Your task to perform on an android device: stop showing notifications on the lock screen Image 0: 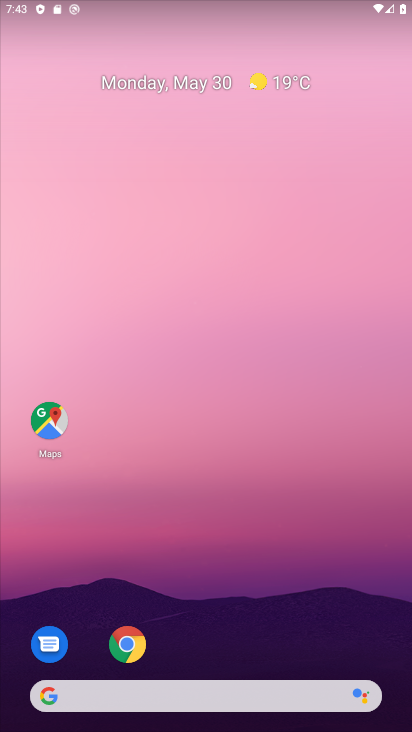
Step 0: drag from (235, 630) to (224, 95)
Your task to perform on an android device: stop showing notifications on the lock screen Image 1: 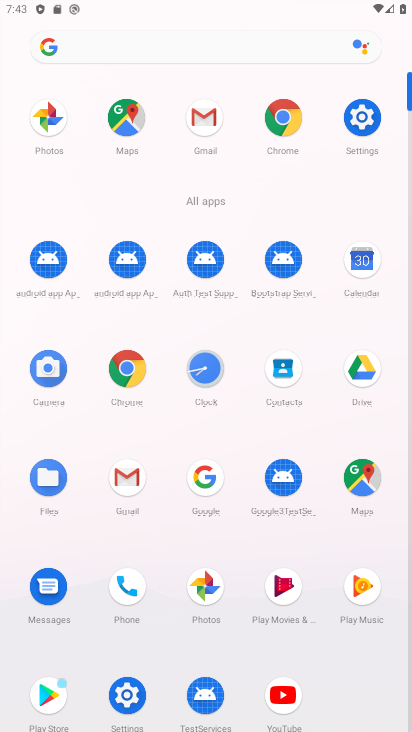
Step 1: click (361, 115)
Your task to perform on an android device: stop showing notifications on the lock screen Image 2: 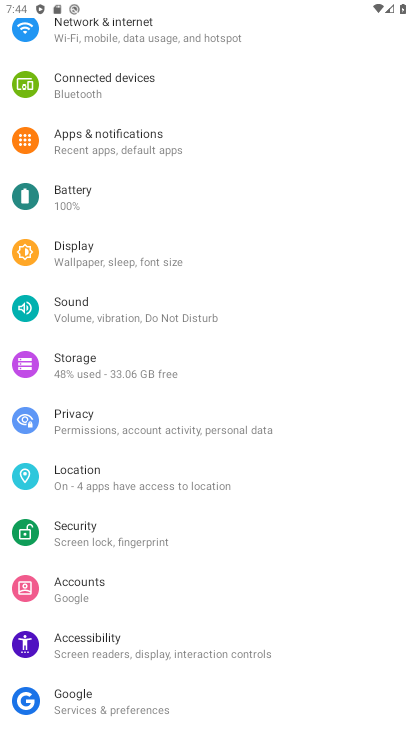
Step 2: drag from (112, 140) to (132, 229)
Your task to perform on an android device: stop showing notifications on the lock screen Image 3: 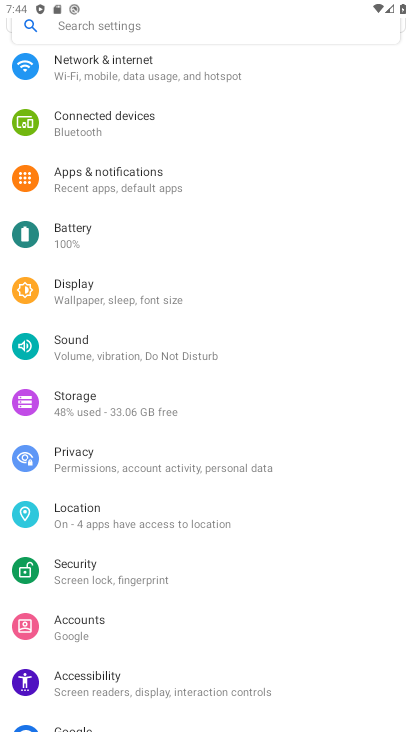
Step 3: click (107, 176)
Your task to perform on an android device: stop showing notifications on the lock screen Image 4: 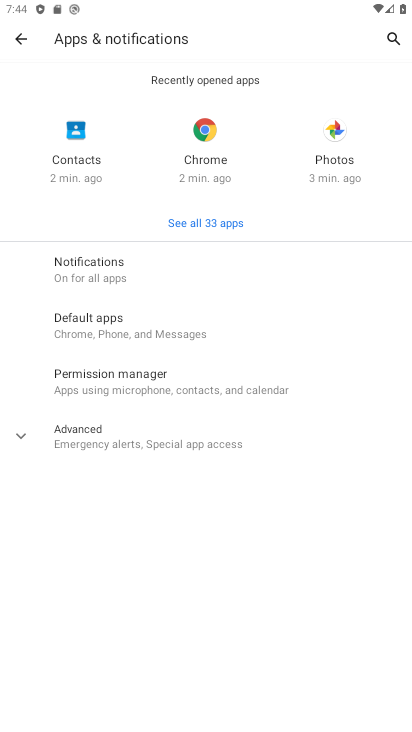
Step 4: click (105, 263)
Your task to perform on an android device: stop showing notifications on the lock screen Image 5: 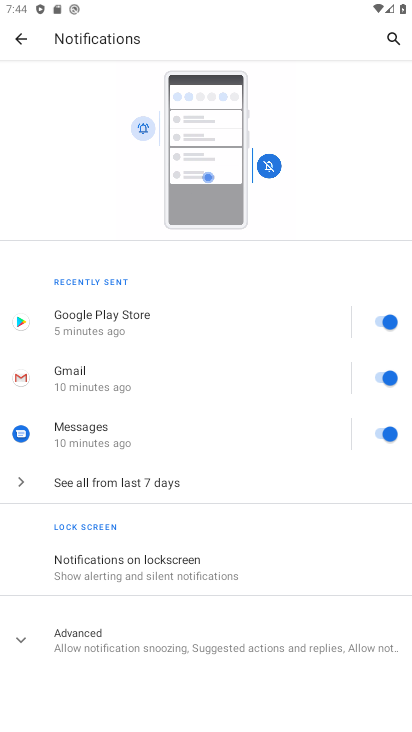
Step 5: click (110, 571)
Your task to perform on an android device: stop showing notifications on the lock screen Image 6: 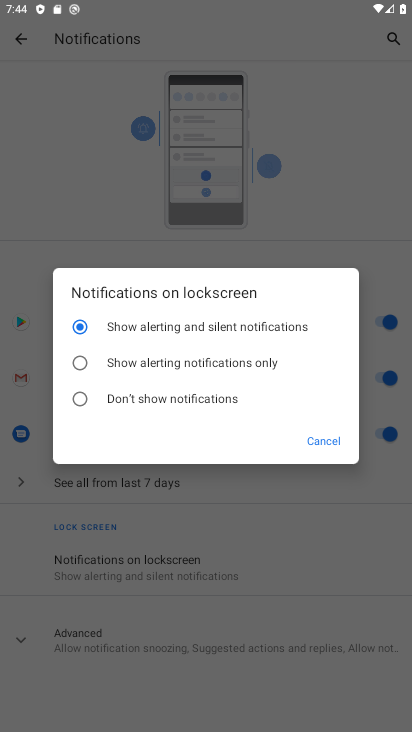
Step 6: click (107, 397)
Your task to perform on an android device: stop showing notifications on the lock screen Image 7: 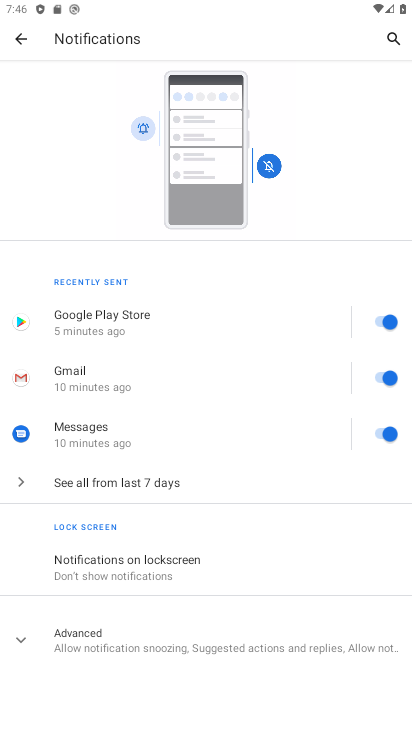
Step 7: task complete